Your task to perform on an android device: Go to Google Image 0: 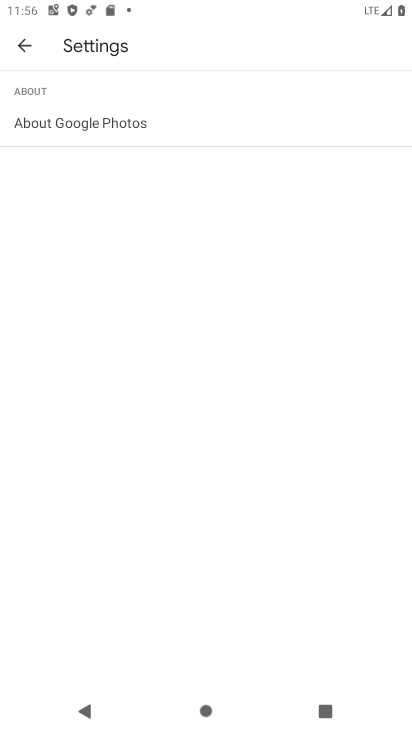
Step 0: press home button
Your task to perform on an android device: Go to Google Image 1: 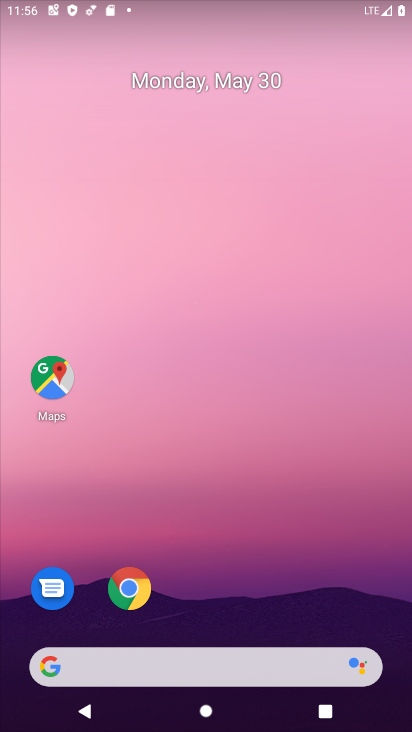
Step 1: drag from (222, 609) to (273, 84)
Your task to perform on an android device: Go to Google Image 2: 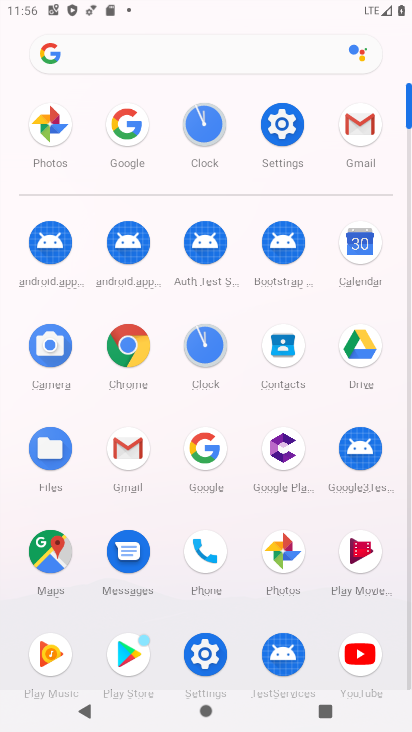
Step 2: click (204, 445)
Your task to perform on an android device: Go to Google Image 3: 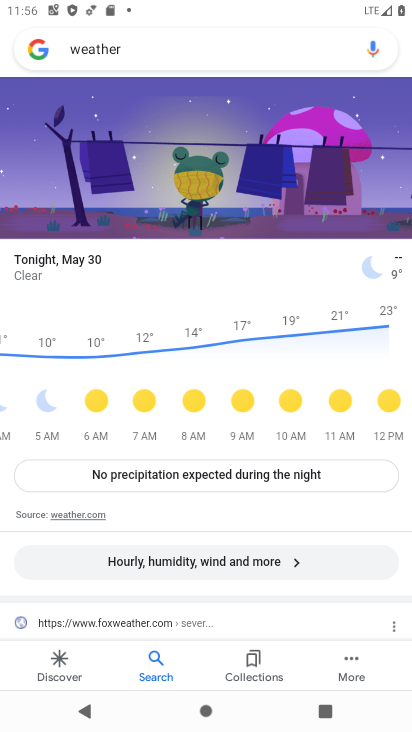
Step 3: task complete